Your task to perform on an android device: delete location history Image 0: 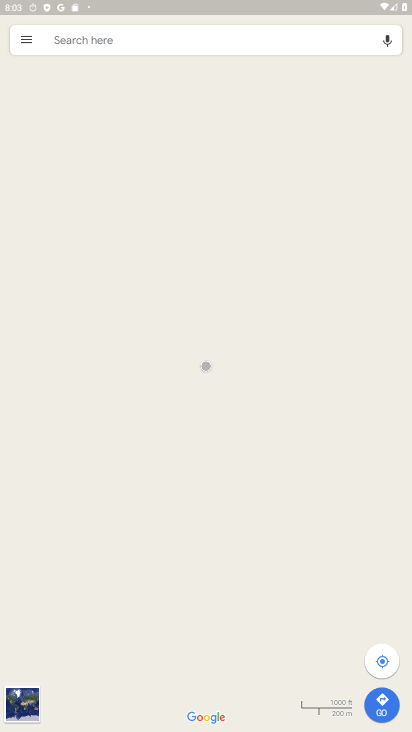
Step 0: press back button
Your task to perform on an android device: delete location history Image 1: 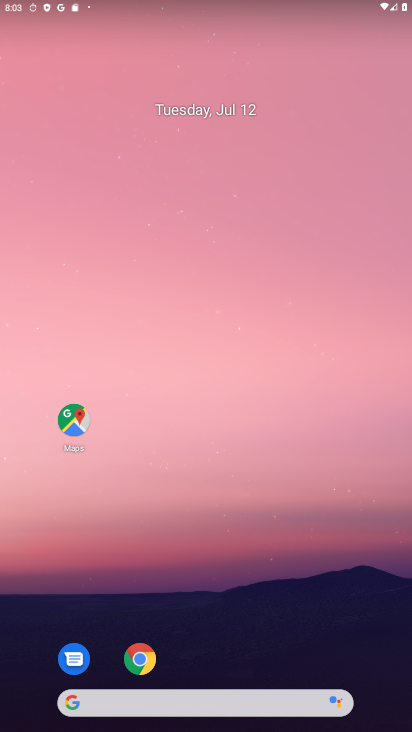
Step 1: drag from (304, 685) to (259, 273)
Your task to perform on an android device: delete location history Image 2: 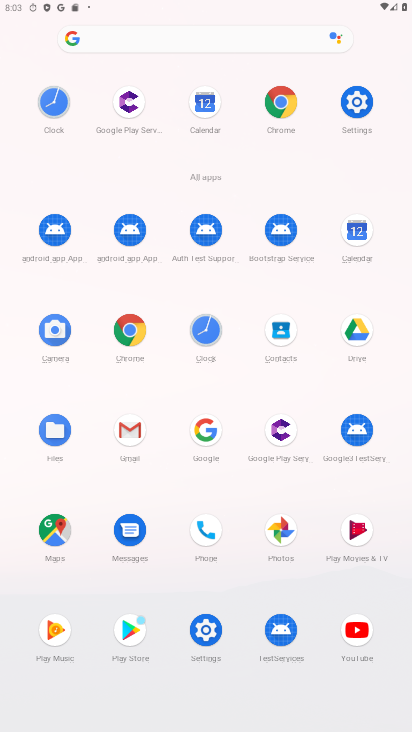
Step 2: click (367, 102)
Your task to perform on an android device: delete location history Image 3: 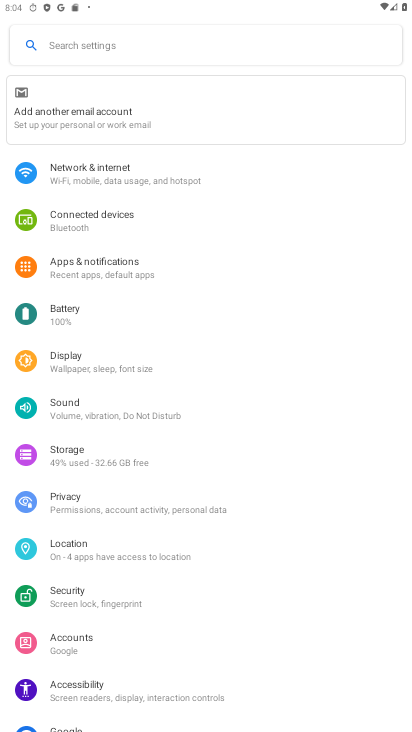
Step 3: drag from (82, 515) to (88, 188)
Your task to perform on an android device: delete location history Image 4: 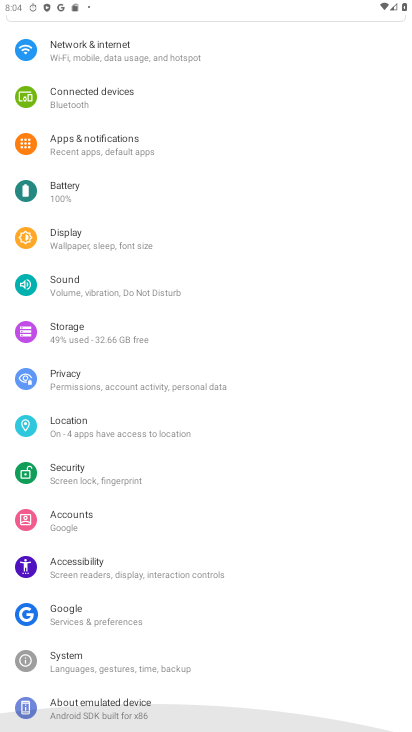
Step 4: drag from (139, 441) to (160, 195)
Your task to perform on an android device: delete location history Image 5: 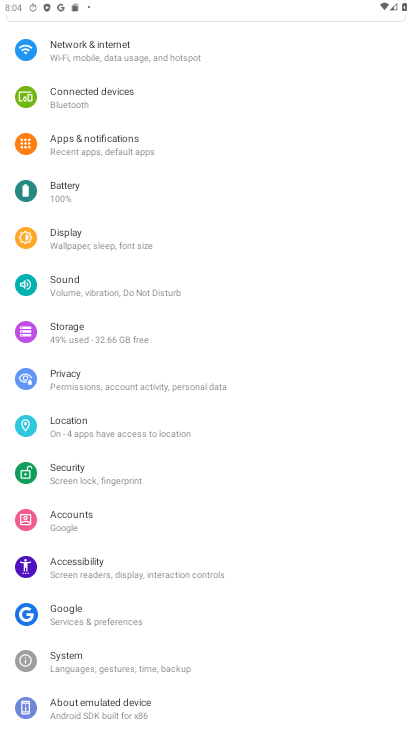
Step 5: drag from (104, 636) to (91, 314)
Your task to perform on an android device: delete location history Image 6: 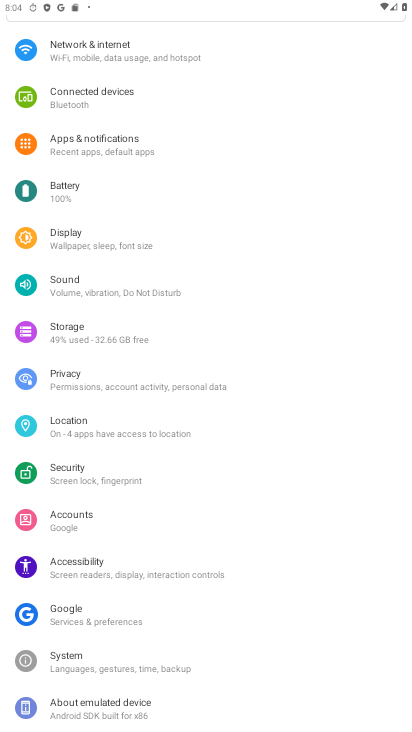
Step 6: click (79, 429)
Your task to perform on an android device: delete location history Image 7: 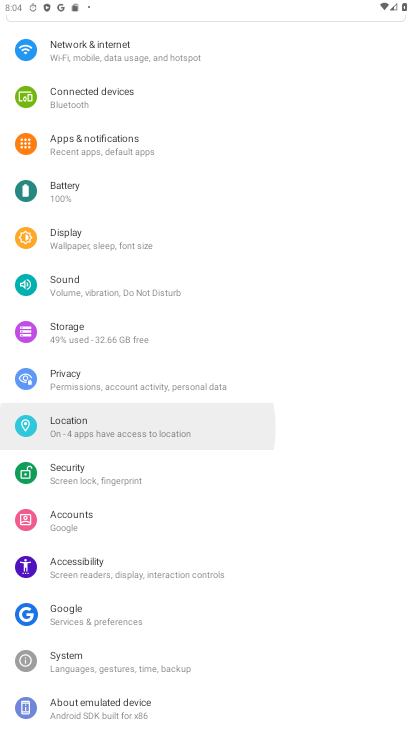
Step 7: click (79, 428)
Your task to perform on an android device: delete location history Image 8: 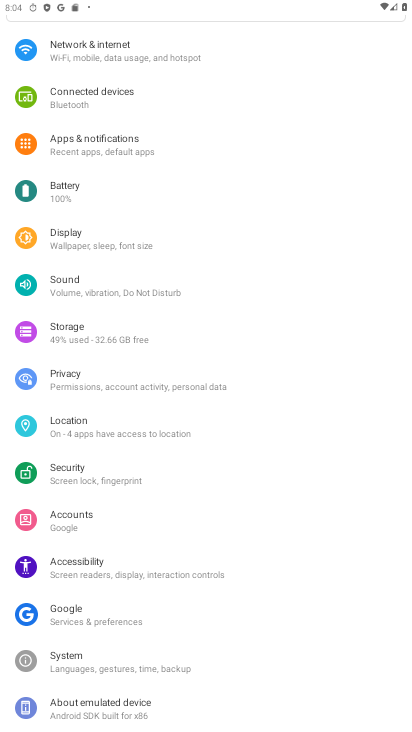
Step 8: click (82, 427)
Your task to perform on an android device: delete location history Image 9: 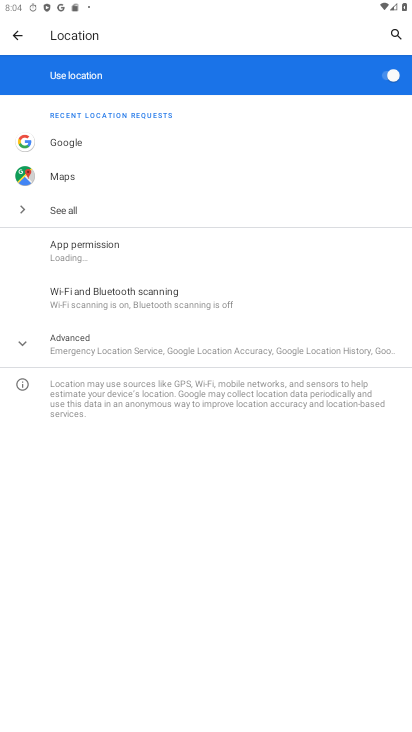
Step 9: click (89, 342)
Your task to perform on an android device: delete location history Image 10: 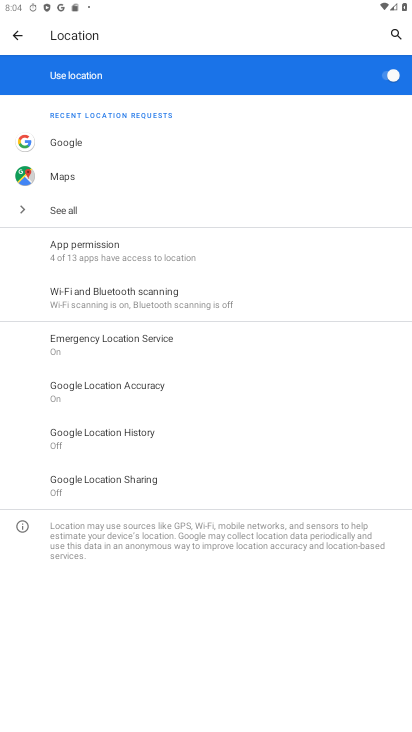
Step 10: click (124, 441)
Your task to perform on an android device: delete location history Image 11: 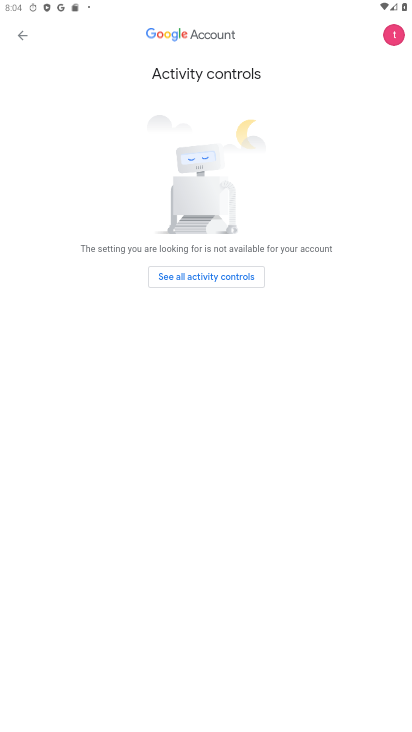
Step 11: task complete